Your task to perform on an android device: find photos in the google photos app Image 0: 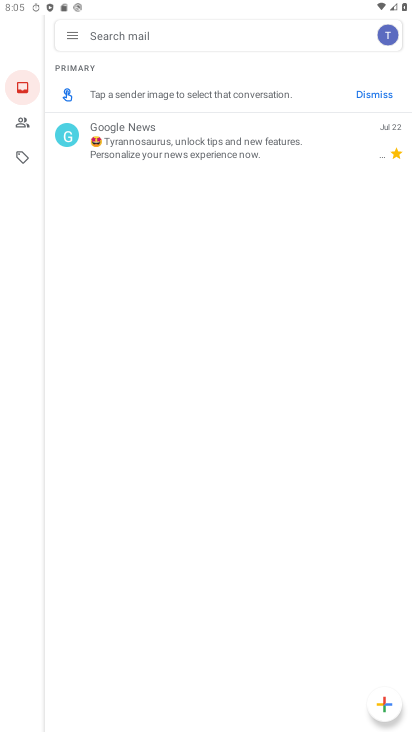
Step 0: press back button
Your task to perform on an android device: find photos in the google photos app Image 1: 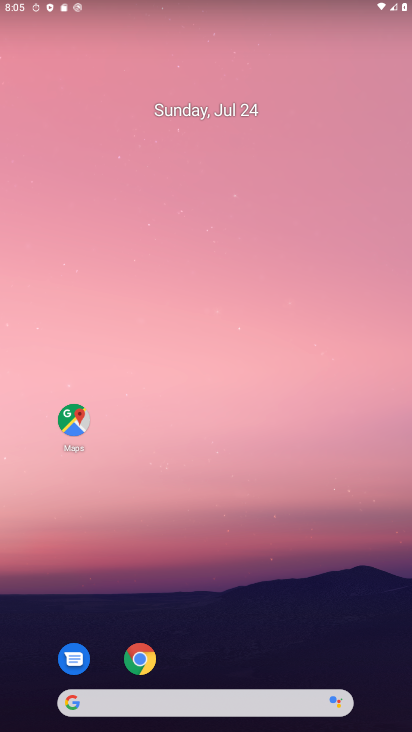
Step 1: drag from (300, 699) to (281, 224)
Your task to perform on an android device: find photos in the google photos app Image 2: 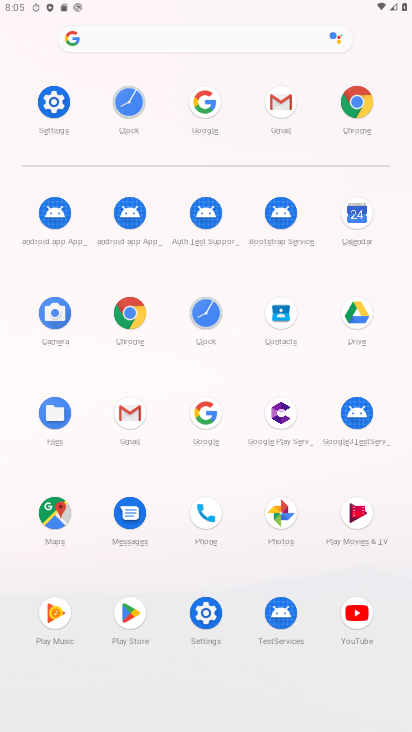
Step 2: click (276, 496)
Your task to perform on an android device: find photos in the google photos app Image 3: 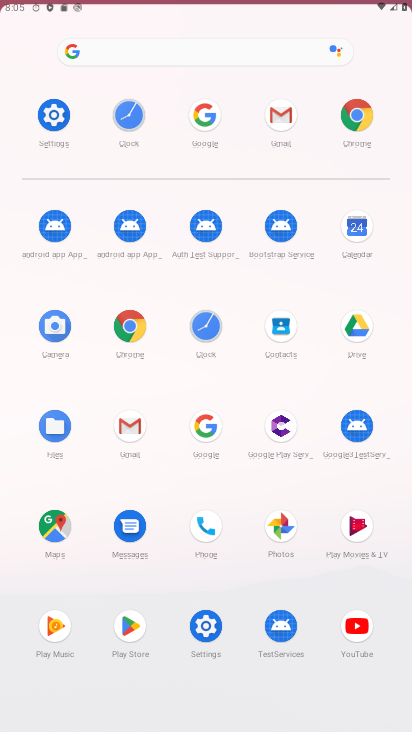
Step 3: click (301, 514)
Your task to perform on an android device: find photos in the google photos app Image 4: 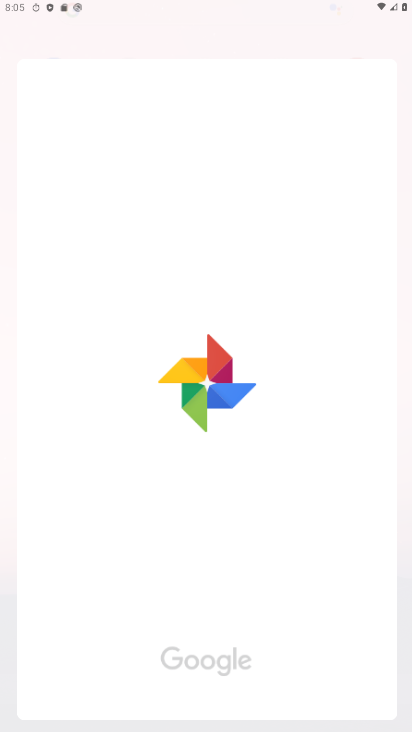
Step 4: click (276, 514)
Your task to perform on an android device: find photos in the google photos app Image 5: 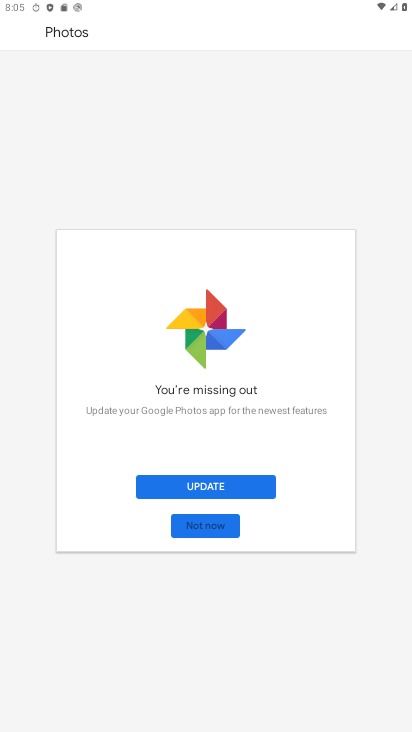
Step 5: click (216, 514)
Your task to perform on an android device: find photos in the google photos app Image 6: 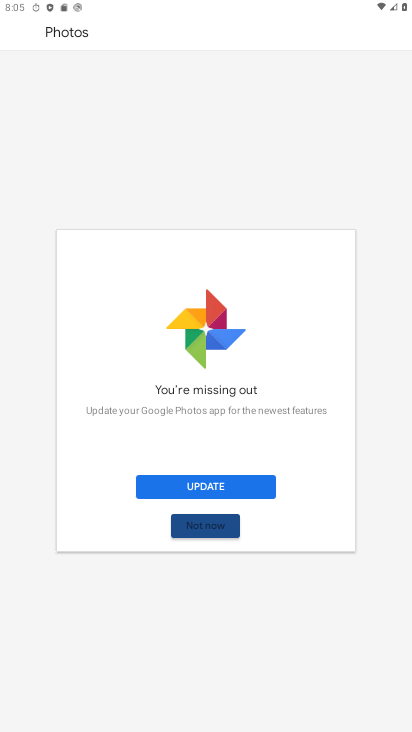
Step 6: click (215, 514)
Your task to perform on an android device: find photos in the google photos app Image 7: 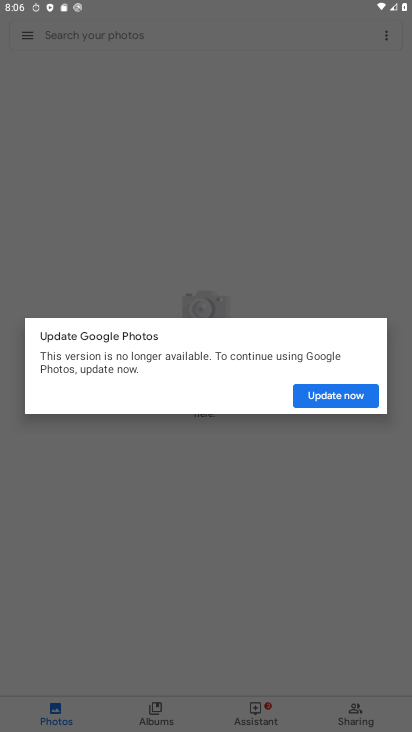
Step 7: click (344, 394)
Your task to perform on an android device: find photos in the google photos app Image 8: 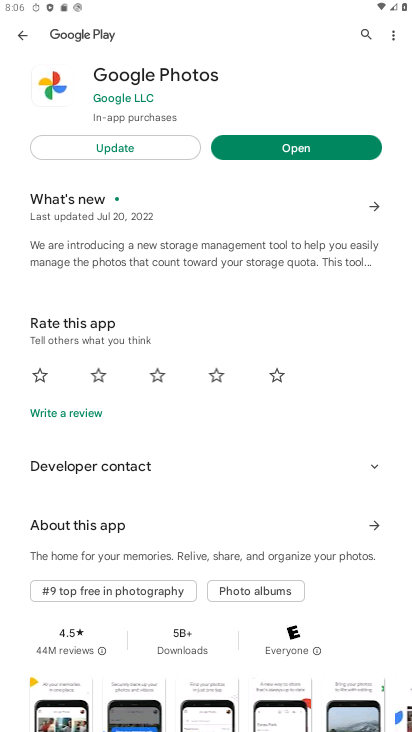
Step 8: click (157, 141)
Your task to perform on an android device: find photos in the google photos app Image 9: 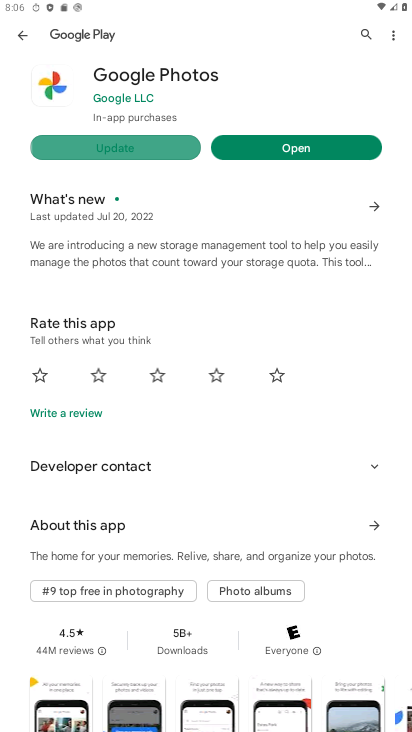
Step 9: click (156, 141)
Your task to perform on an android device: find photos in the google photos app Image 10: 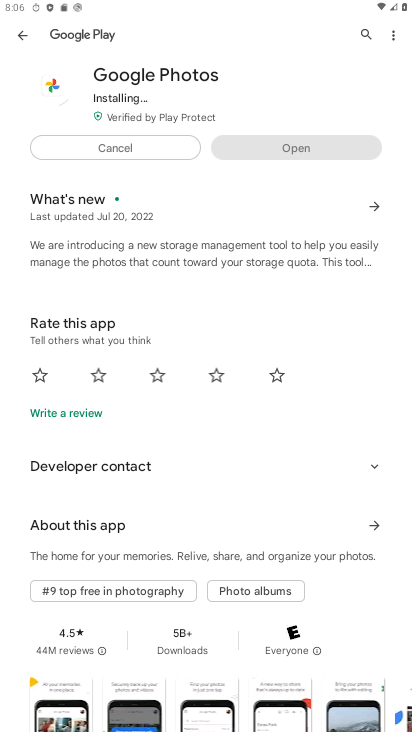
Step 10: click (363, 162)
Your task to perform on an android device: find photos in the google photos app Image 11: 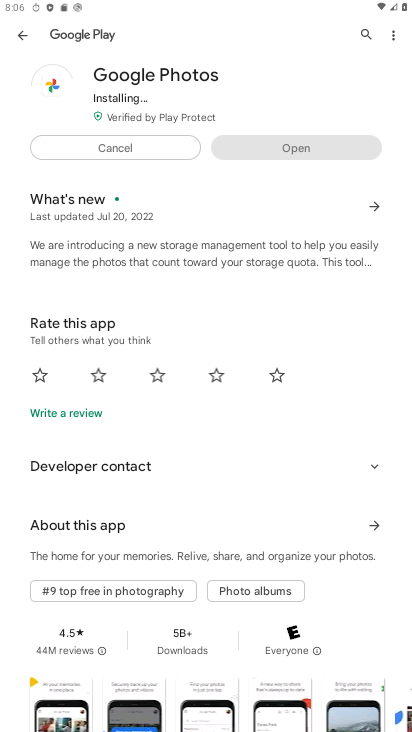
Step 11: click (345, 150)
Your task to perform on an android device: find photos in the google photos app Image 12: 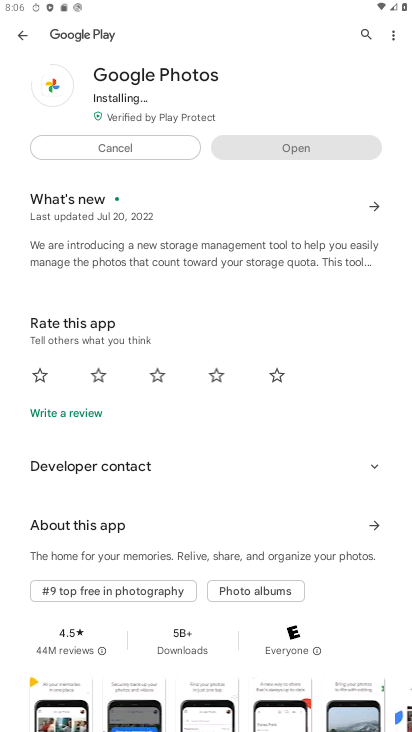
Step 12: click (344, 149)
Your task to perform on an android device: find photos in the google photos app Image 13: 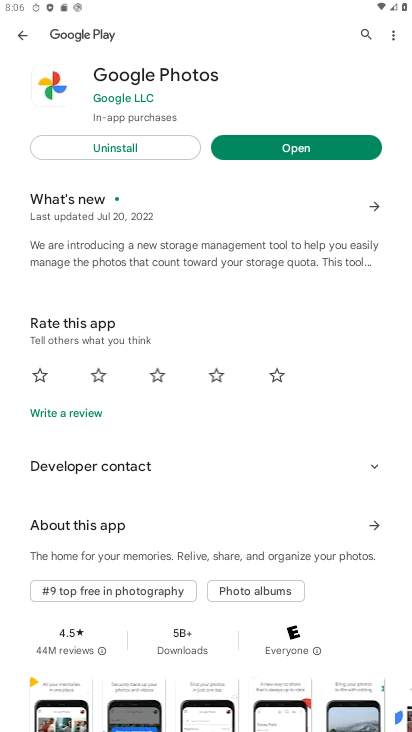
Step 13: click (327, 153)
Your task to perform on an android device: find photos in the google photos app Image 14: 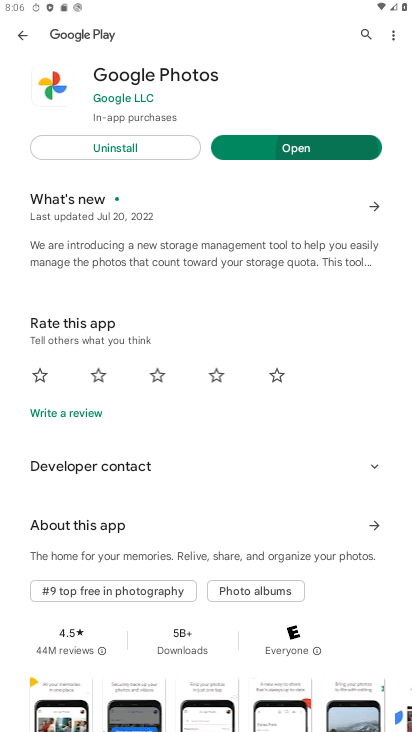
Step 14: click (331, 156)
Your task to perform on an android device: find photos in the google photos app Image 15: 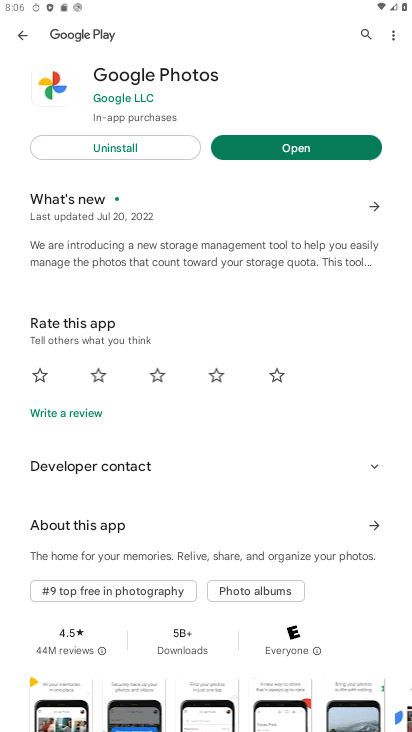
Step 15: click (331, 160)
Your task to perform on an android device: find photos in the google photos app Image 16: 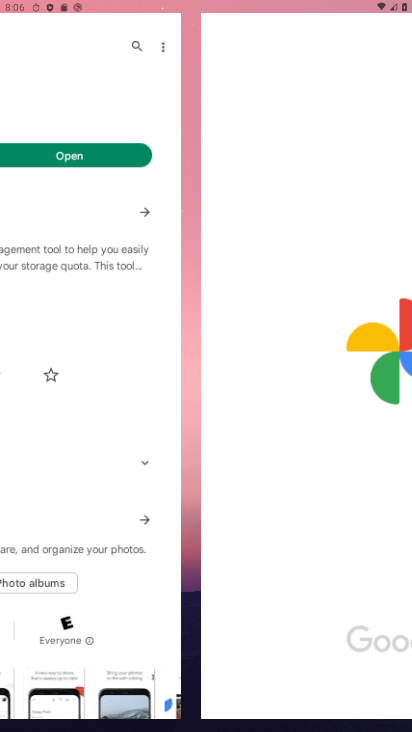
Step 16: click (333, 163)
Your task to perform on an android device: find photos in the google photos app Image 17: 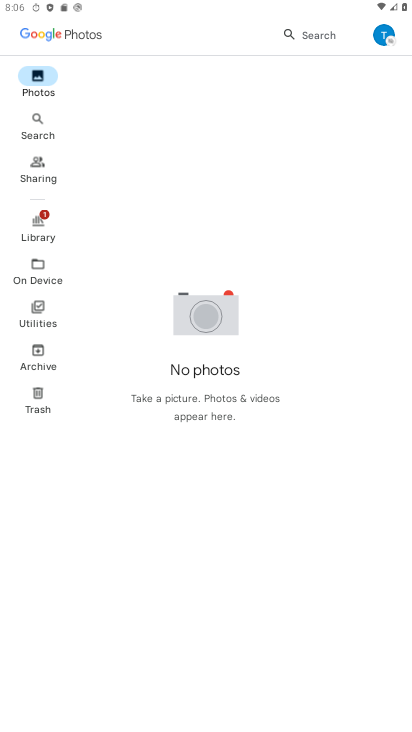
Step 17: task complete